Your task to perform on an android device: Open Chrome and go to the settings page Image 0: 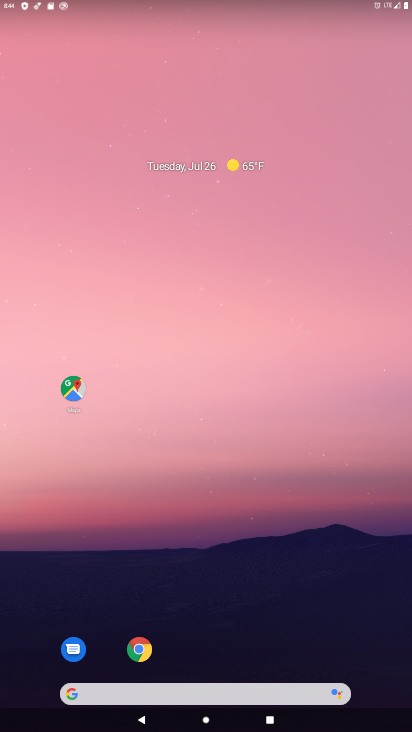
Step 0: click (139, 649)
Your task to perform on an android device: Open Chrome and go to the settings page Image 1: 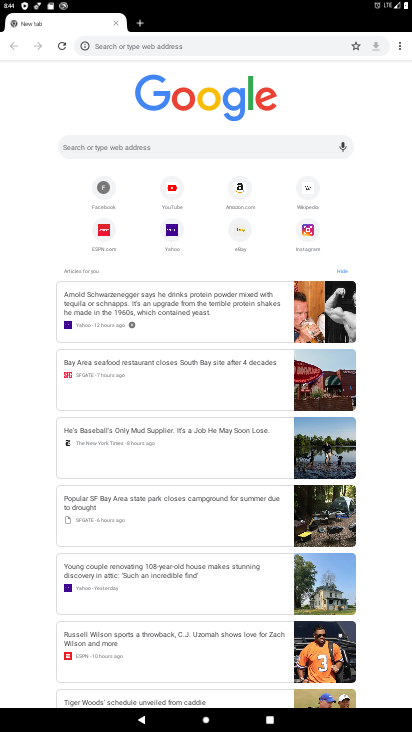
Step 1: click (399, 44)
Your task to perform on an android device: Open Chrome and go to the settings page Image 2: 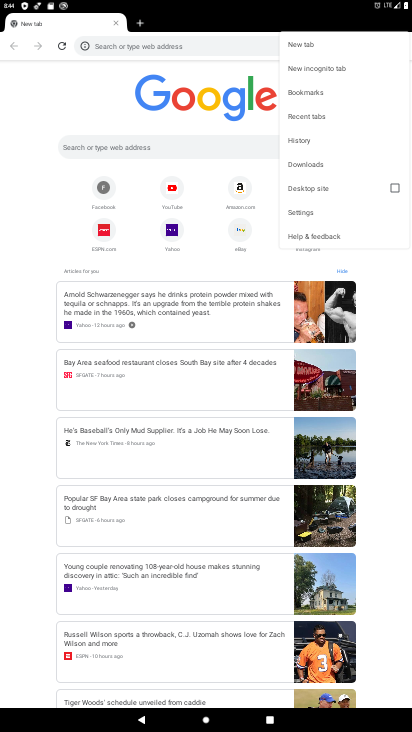
Step 2: click (304, 213)
Your task to perform on an android device: Open Chrome and go to the settings page Image 3: 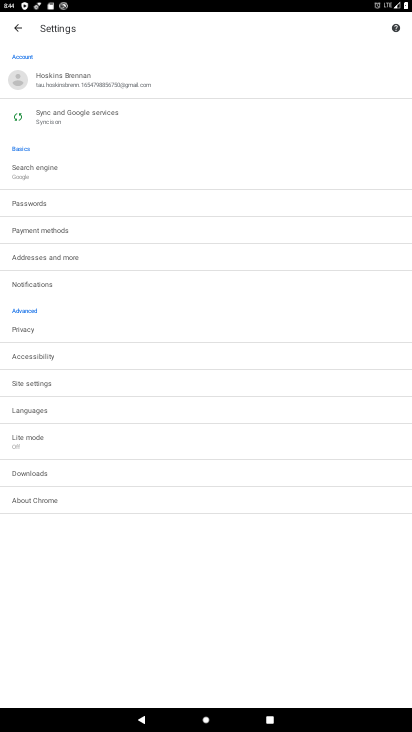
Step 3: task complete